Your task to perform on an android device: delete location history Image 0: 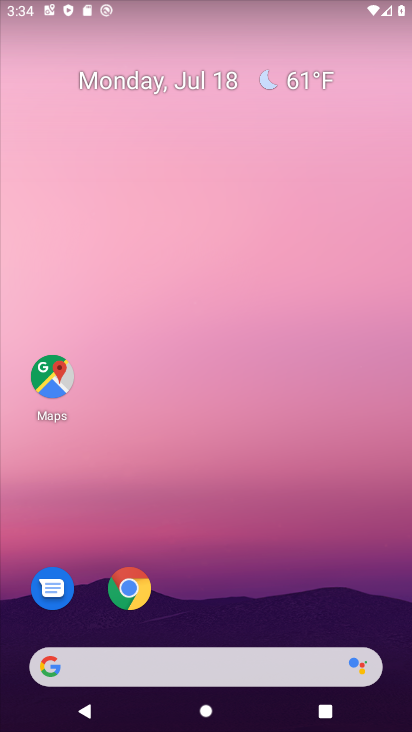
Step 0: drag from (338, 609) to (299, 14)
Your task to perform on an android device: delete location history Image 1: 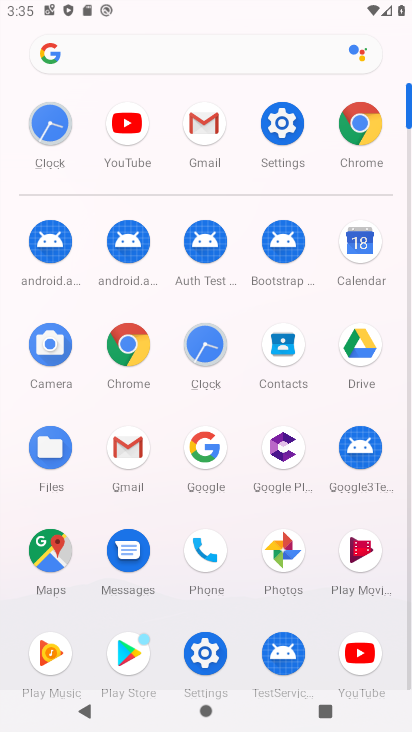
Step 1: click (292, 141)
Your task to perform on an android device: delete location history Image 2: 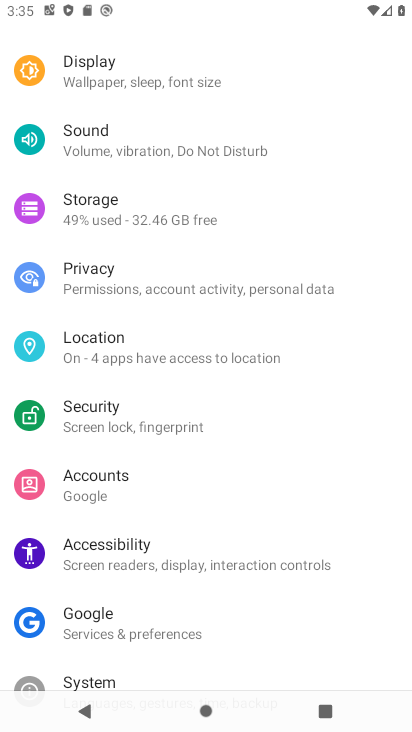
Step 2: click (251, 351)
Your task to perform on an android device: delete location history Image 3: 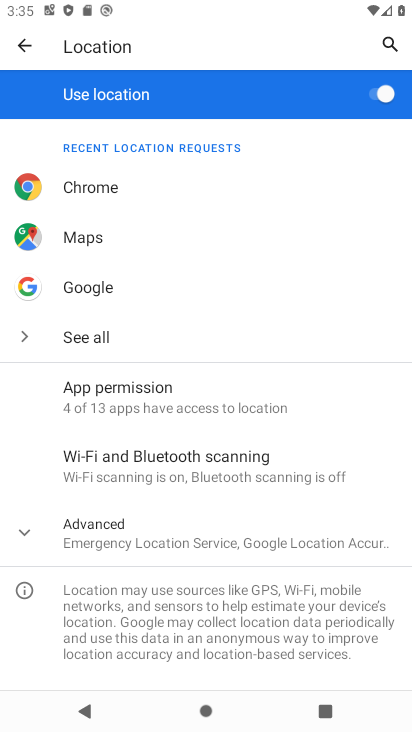
Step 3: click (204, 522)
Your task to perform on an android device: delete location history Image 4: 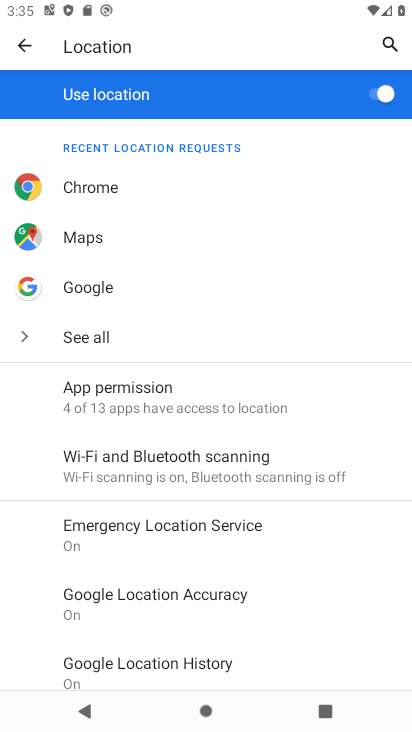
Step 4: drag from (221, 567) to (224, 194)
Your task to perform on an android device: delete location history Image 5: 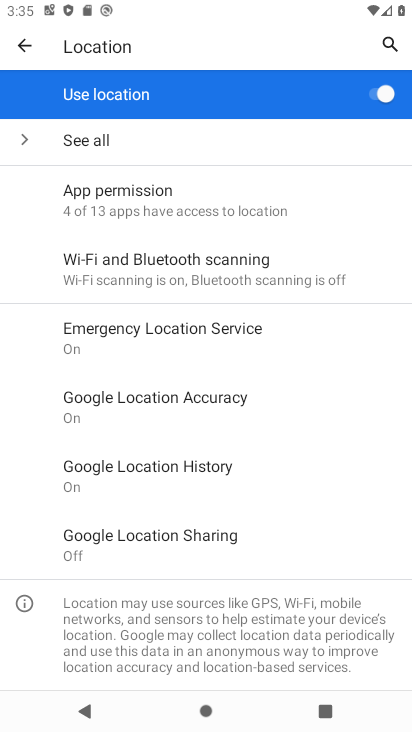
Step 5: click (182, 462)
Your task to perform on an android device: delete location history Image 6: 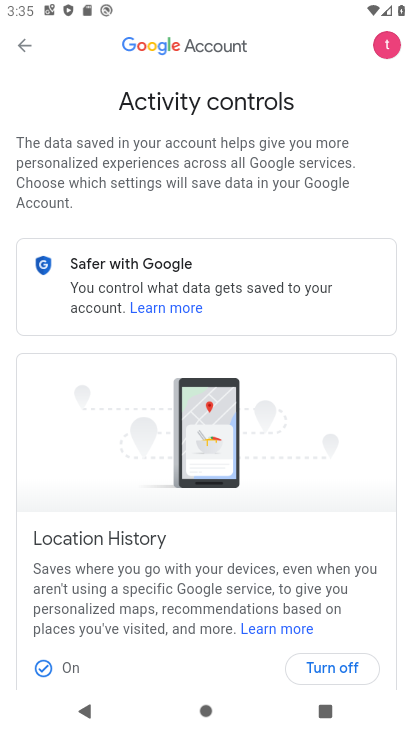
Step 6: click (309, 659)
Your task to perform on an android device: delete location history Image 7: 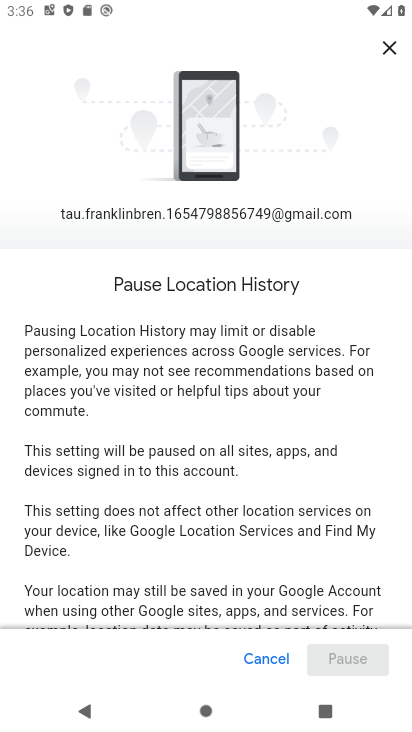
Step 7: drag from (338, 592) to (341, 162)
Your task to perform on an android device: delete location history Image 8: 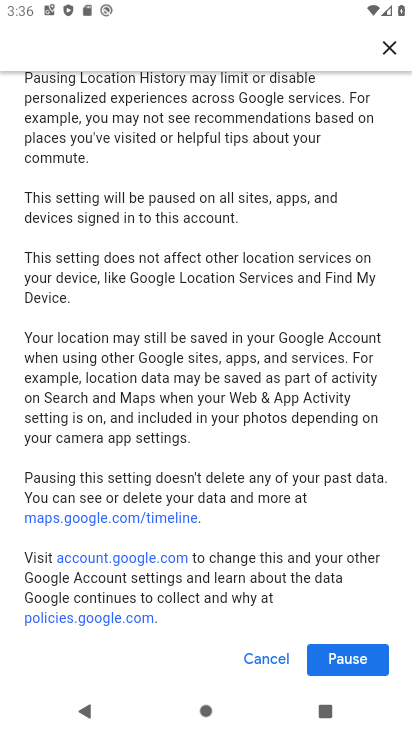
Step 8: click (355, 660)
Your task to perform on an android device: delete location history Image 9: 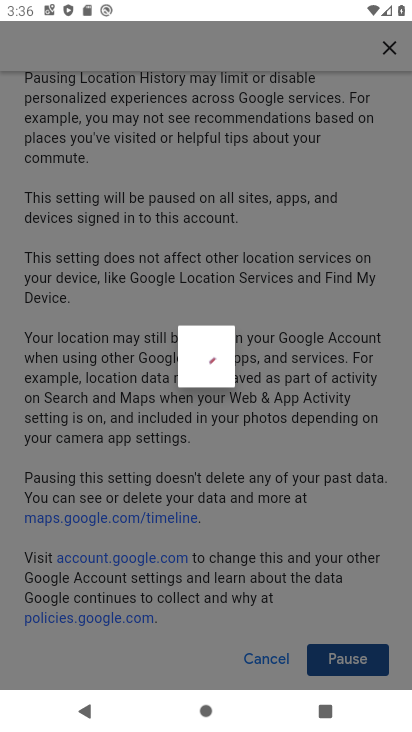
Step 9: click (372, 659)
Your task to perform on an android device: delete location history Image 10: 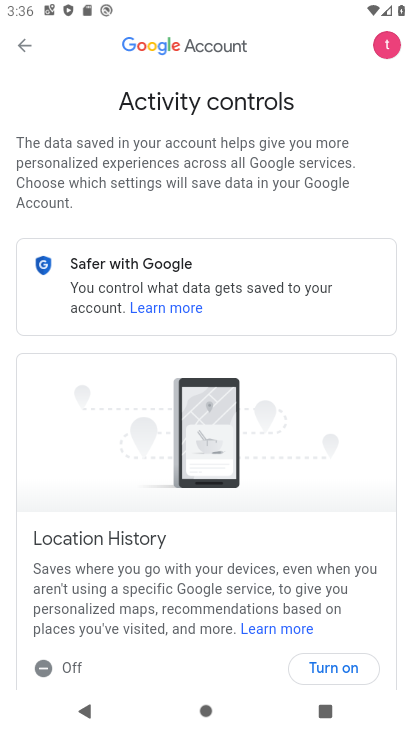
Step 10: click (372, 659)
Your task to perform on an android device: delete location history Image 11: 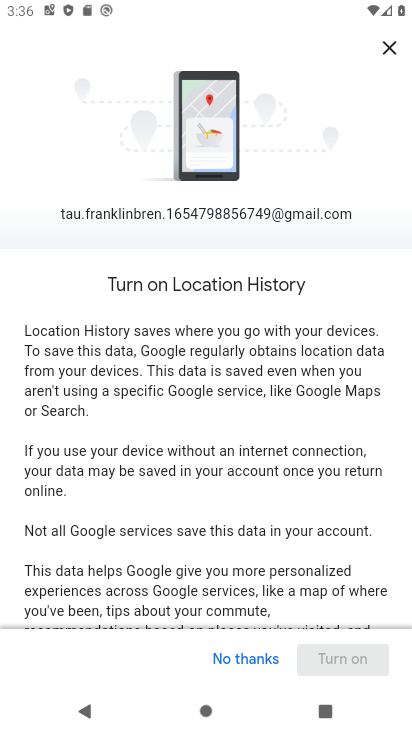
Step 11: drag from (281, 561) to (312, 144)
Your task to perform on an android device: delete location history Image 12: 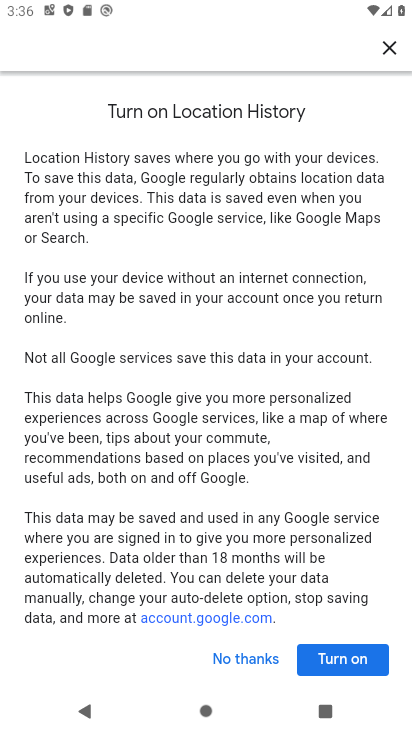
Step 12: click (343, 674)
Your task to perform on an android device: delete location history Image 13: 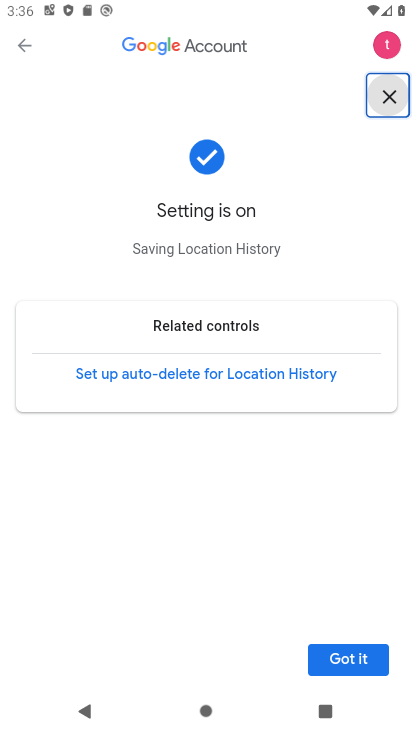
Step 13: click (343, 672)
Your task to perform on an android device: delete location history Image 14: 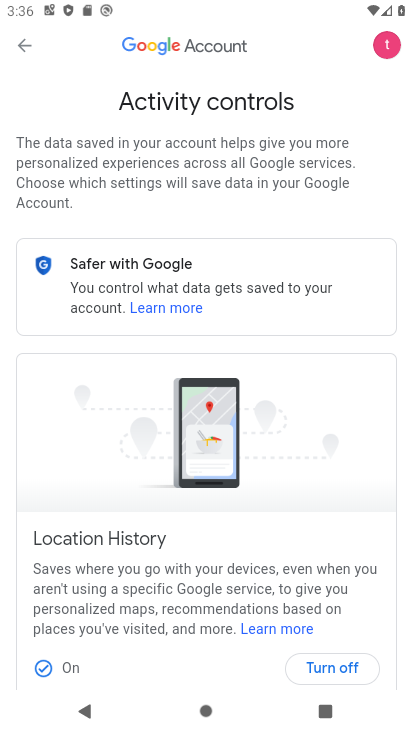
Step 14: task complete